Your task to perform on an android device: turn off priority inbox in the gmail app Image 0: 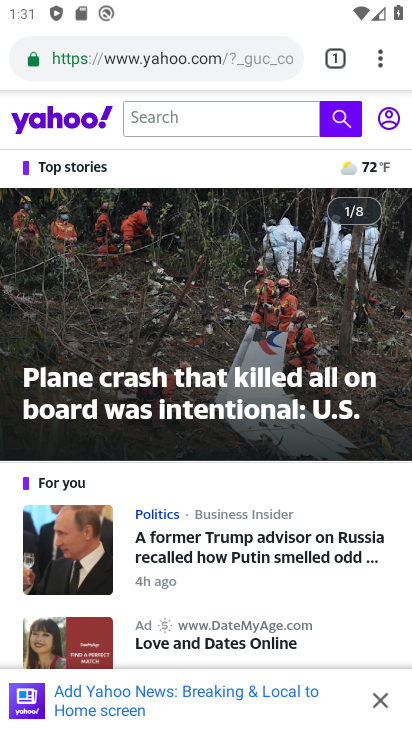
Step 0: click (381, 60)
Your task to perform on an android device: turn off priority inbox in the gmail app Image 1: 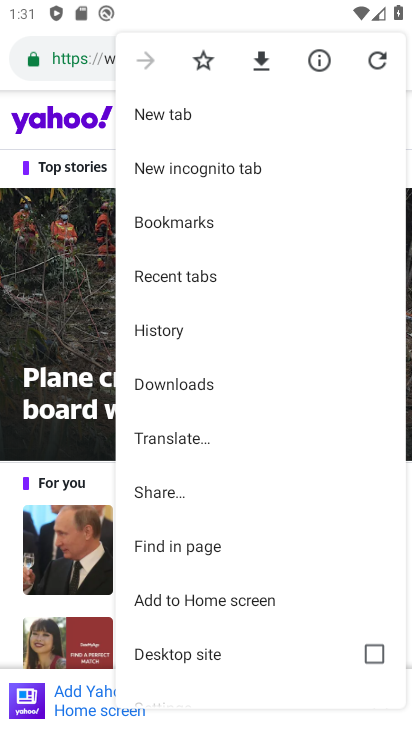
Step 1: drag from (162, 623) to (249, 6)
Your task to perform on an android device: turn off priority inbox in the gmail app Image 2: 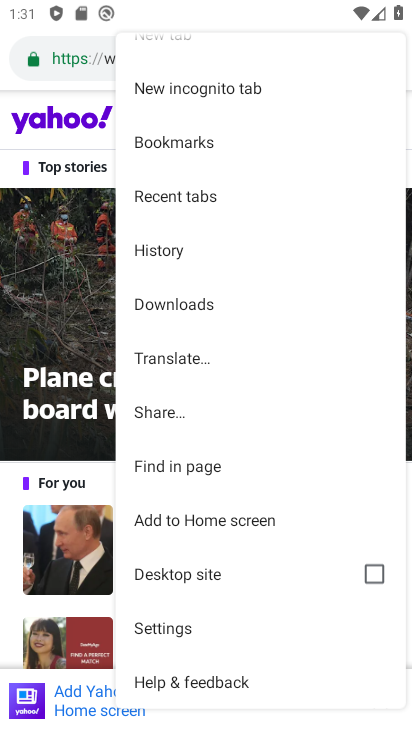
Step 2: click (183, 625)
Your task to perform on an android device: turn off priority inbox in the gmail app Image 3: 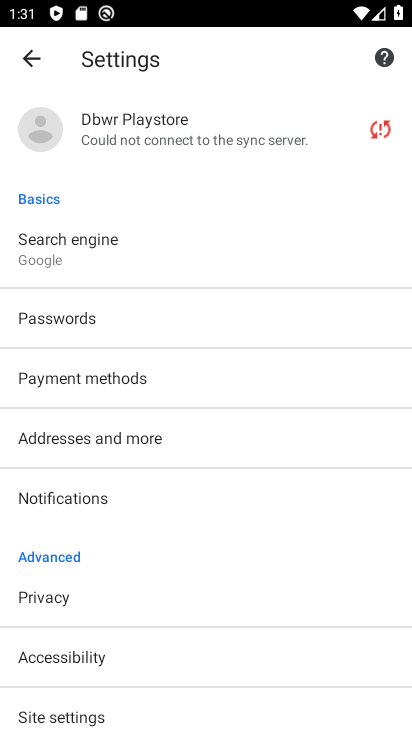
Step 3: task complete